Your task to perform on an android device: turn notification dots off Image 0: 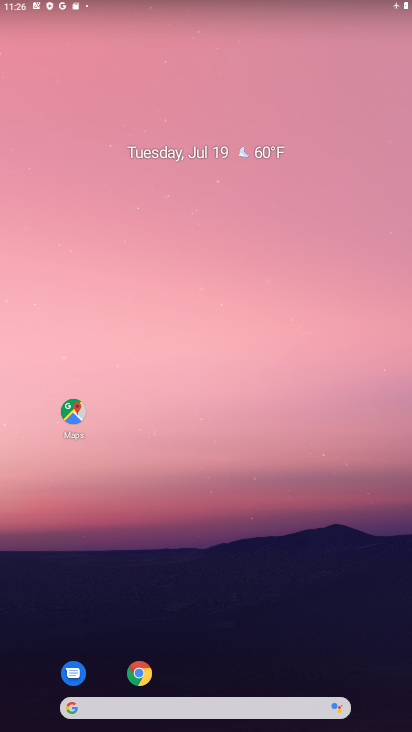
Step 0: drag from (366, 664) to (279, 169)
Your task to perform on an android device: turn notification dots off Image 1: 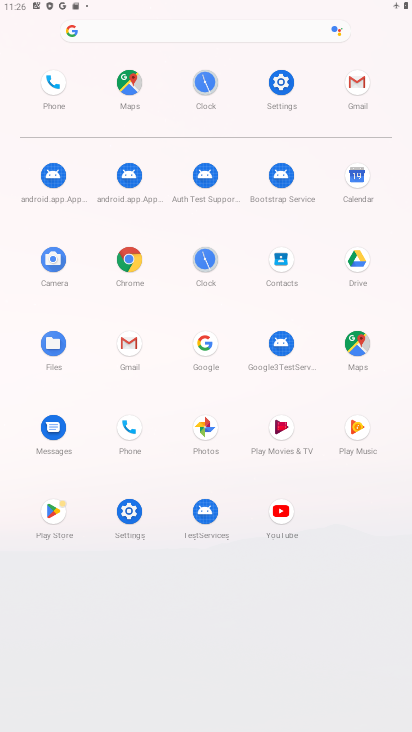
Step 1: click (130, 509)
Your task to perform on an android device: turn notification dots off Image 2: 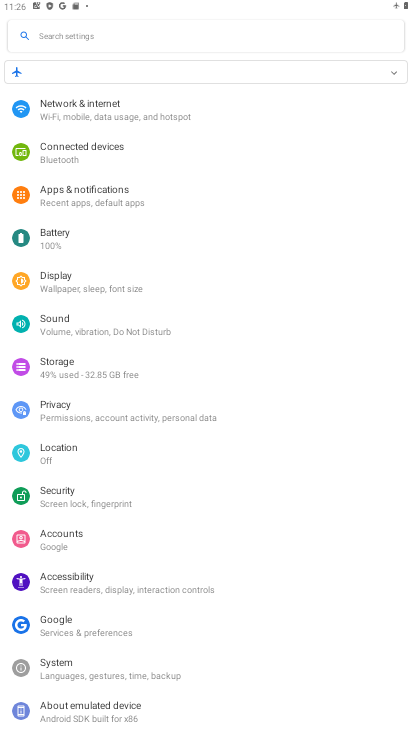
Step 2: click (89, 186)
Your task to perform on an android device: turn notification dots off Image 3: 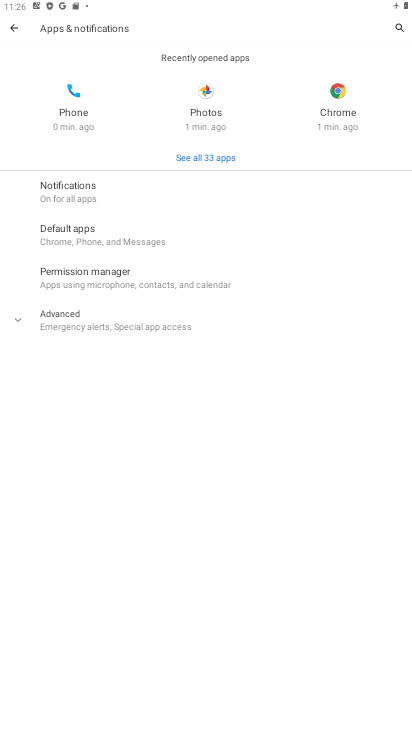
Step 3: click (61, 192)
Your task to perform on an android device: turn notification dots off Image 4: 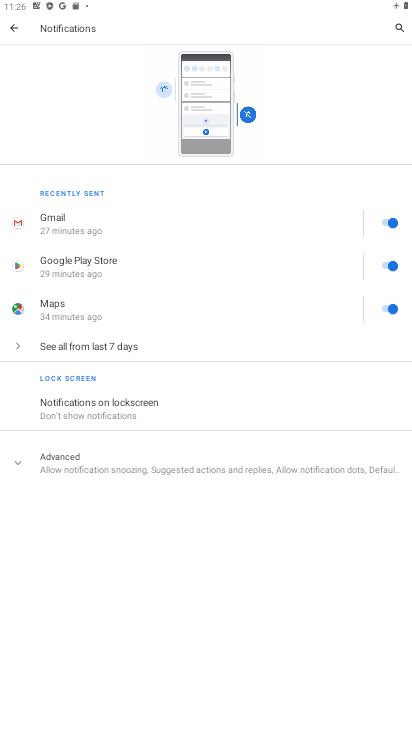
Step 4: click (16, 464)
Your task to perform on an android device: turn notification dots off Image 5: 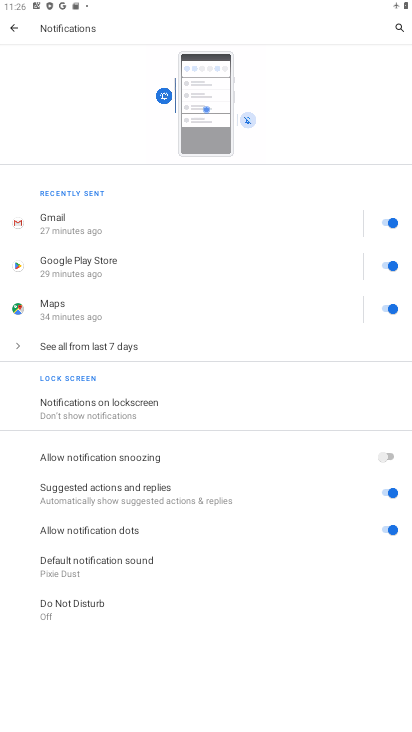
Step 5: click (382, 531)
Your task to perform on an android device: turn notification dots off Image 6: 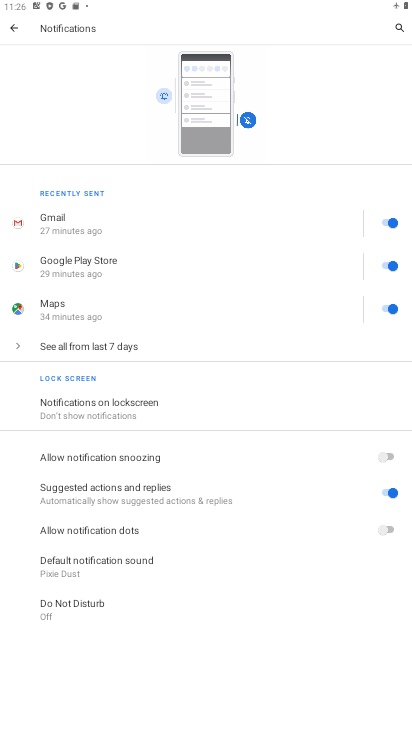
Step 6: task complete